Your task to perform on an android device: Go to wifi settings Image 0: 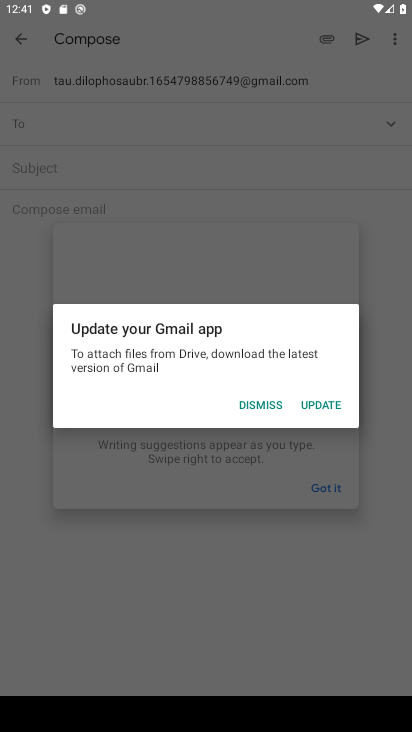
Step 0: press home button
Your task to perform on an android device: Go to wifi settings Image 1: 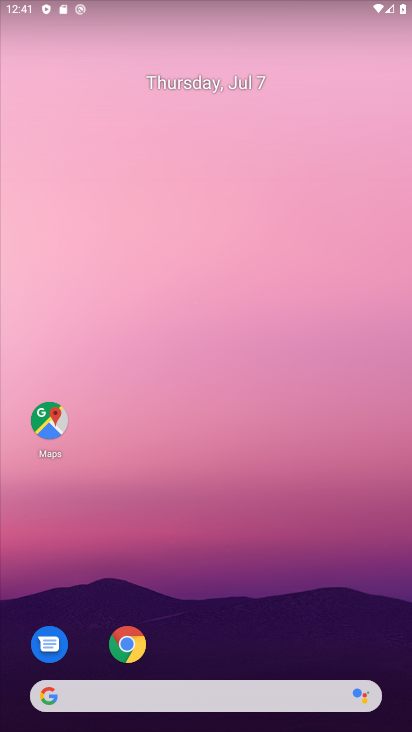
Step 1: drag from (39, 721) to (149, 22)
Your task to perform on an android device: Go to wifi settings Image 2: 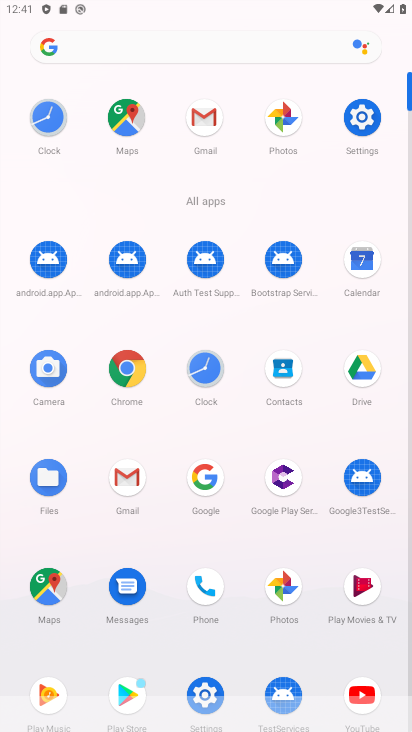
Step 2: click (198, 692)
Your task to perform on an android device: Go to wifi settings Image 3: 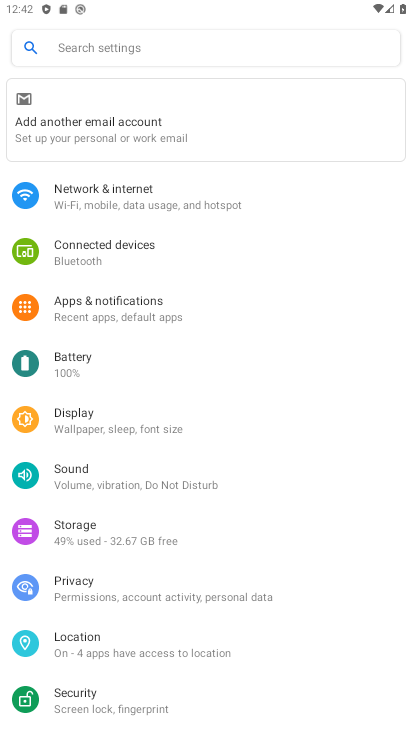
Step 3: click (102, 189)
Your task to perform on an android device: Go to wifi settings Image 4: 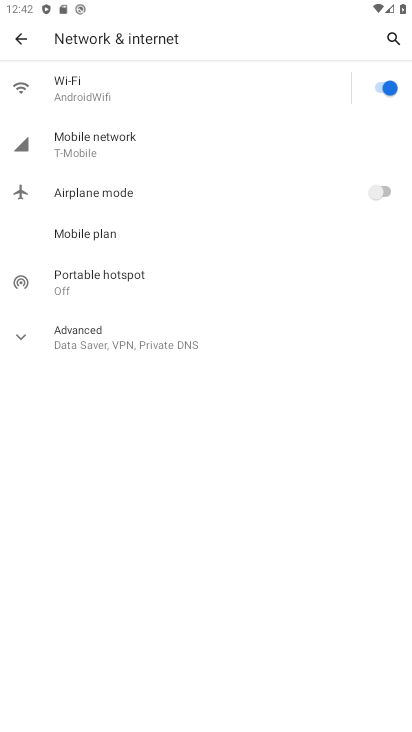
Step 4: click (75, 79)
Your task to perform on an android device: Go to wifi settings Image 5: 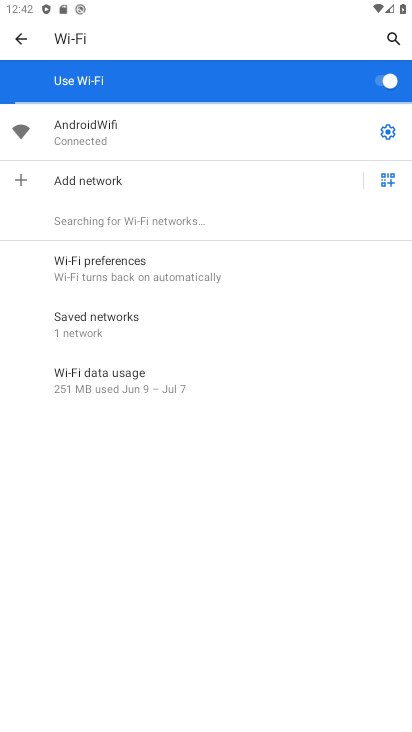
Step 5: task complete